Your task to perform on an android device: turn on showing notifications on the lock screen Image 0: 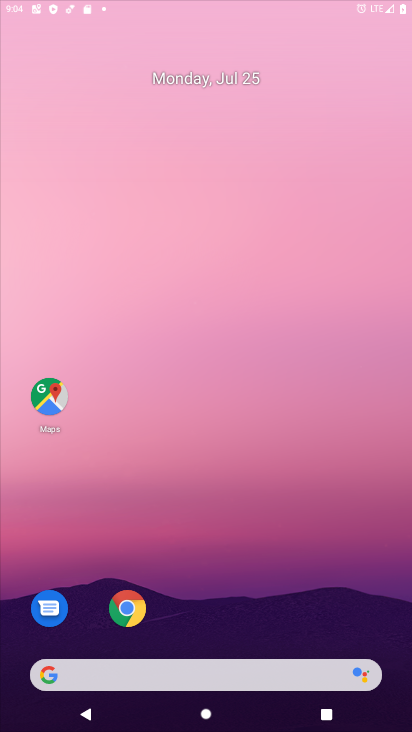
Step 0: click (222, 172)
Your task to perform on an android device: turn on showing notifications on the lock screen Image 1: 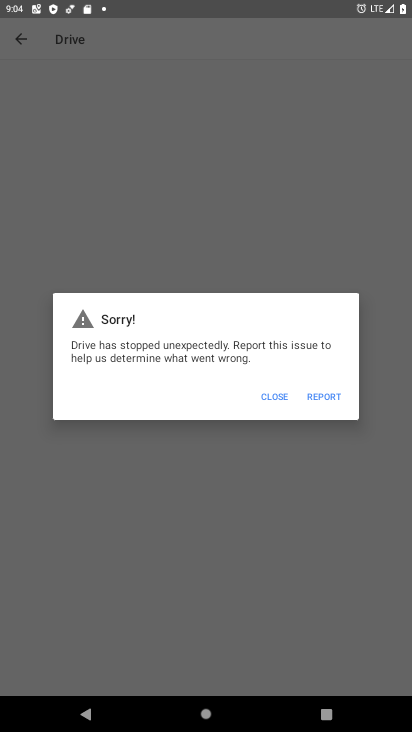
Step 1: press home button
Your task to perform on an android device: turn on showing notifications on the lock screen Image 2: 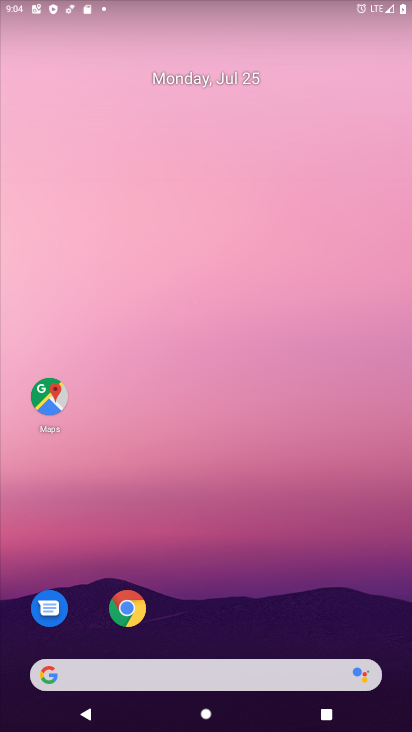
Step 2: drag from (218, 730) to (213, 229)
Your task to perform on an android device: turn on showing notifications on the lock screen Image 3: 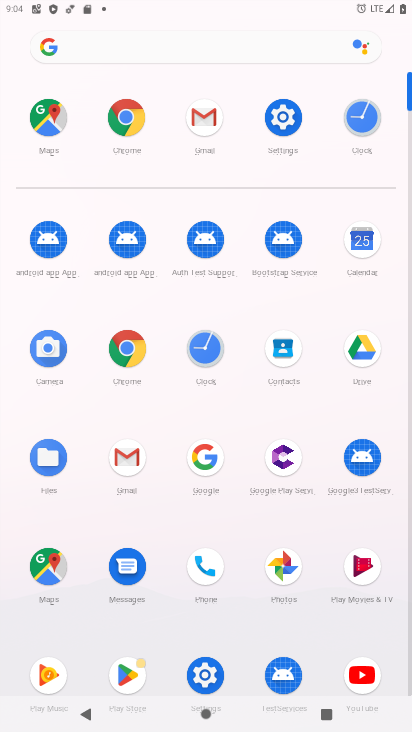
Step 3: click (287, 127)
Your task to perform on an android device: turn on showing notifications on the lock screen Image 4: 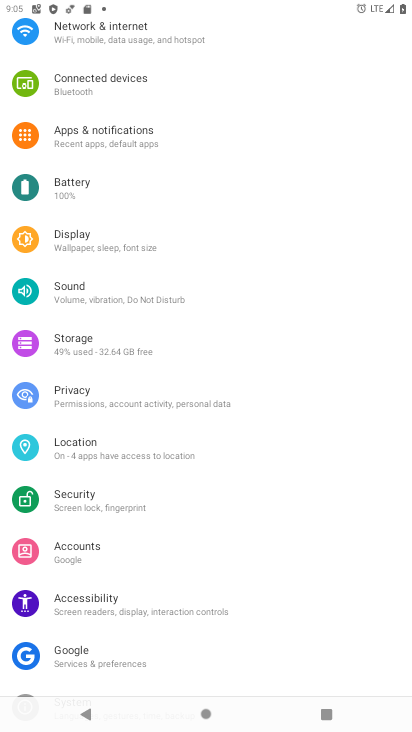
Step 4: click (97, 136)
Your task to perform on an android device: turn on showing notifications on the lock screen Image 5: 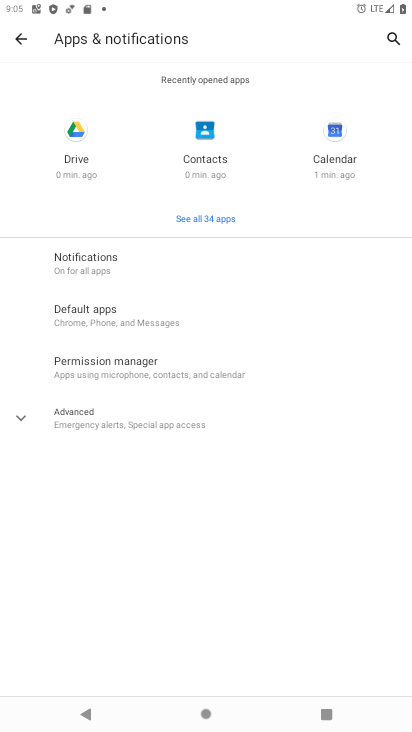
Step 5: click (77, 255)
Your task to perform on an android device: turn on showing notifications on the lock screen Image 6: 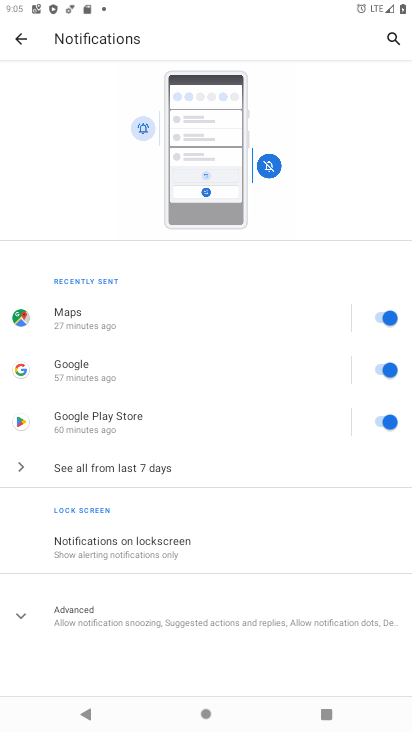
Step 6: click (132, 553)
Your task to perform on an android device: turn on showing notifications on the lock screen Image 7: 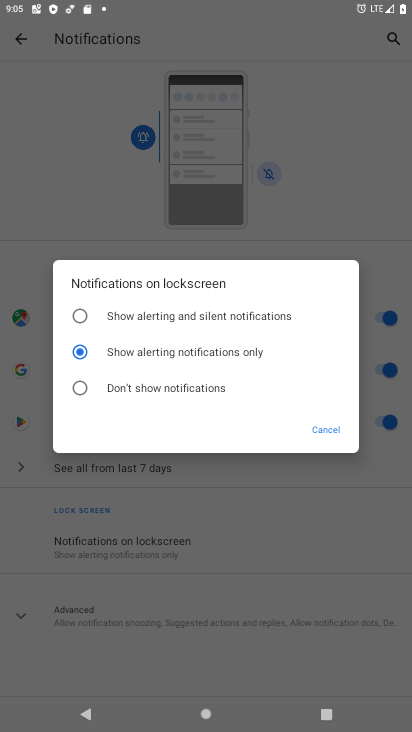
Step 7: click (79, 313)
Your task to perform on an android device: turn on showing notifications on the lock screen Image 8: 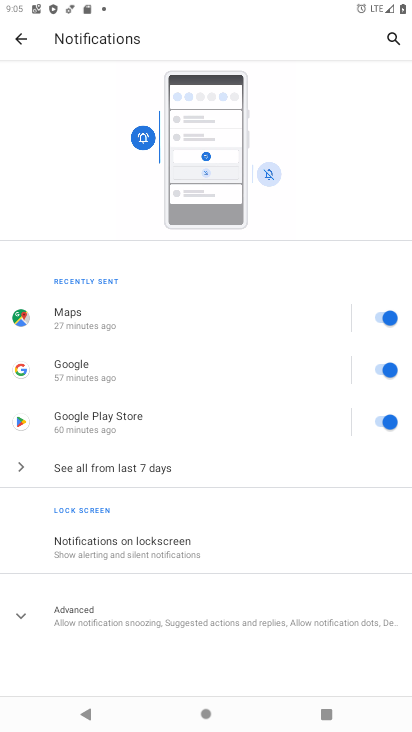
Step 8: task complete